Your task to perform on an android device: Open privacy settings Image 0: 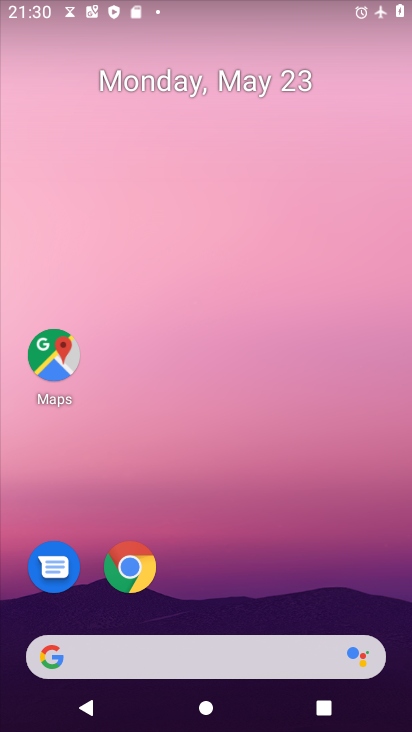
Step 0: drag from (299, 601) to (269, 180)
Your task to perform on an android device: Open privacy settings Image 1: 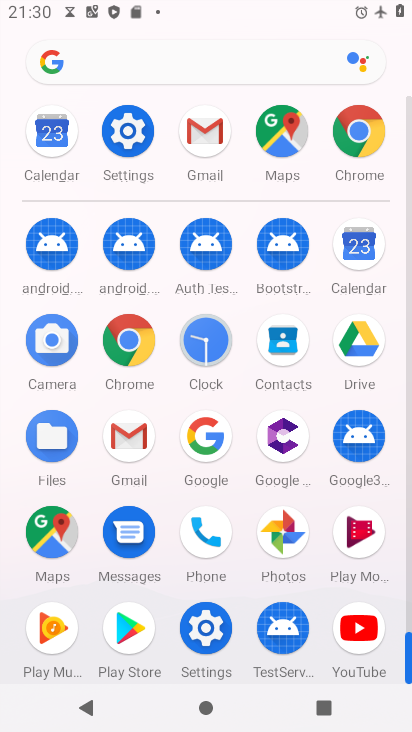
Step 1: click (138, 131)
Your task to perform on an android device: Open privacy settings Image 2: 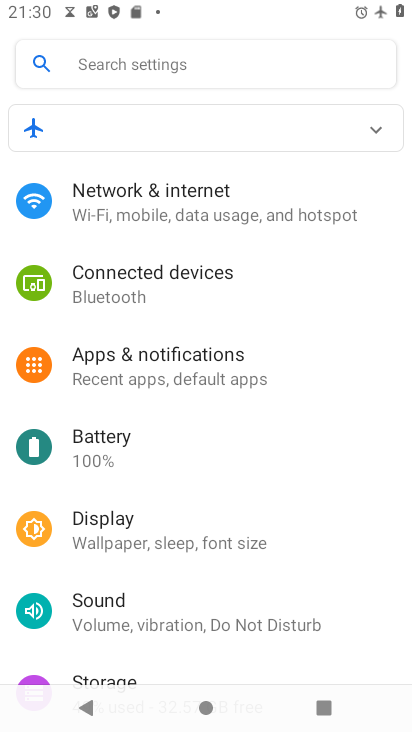
Step 2: drag from (135, 610) to (197, 195)
Your task to perform on an android device: Open privacy settings Image 3: 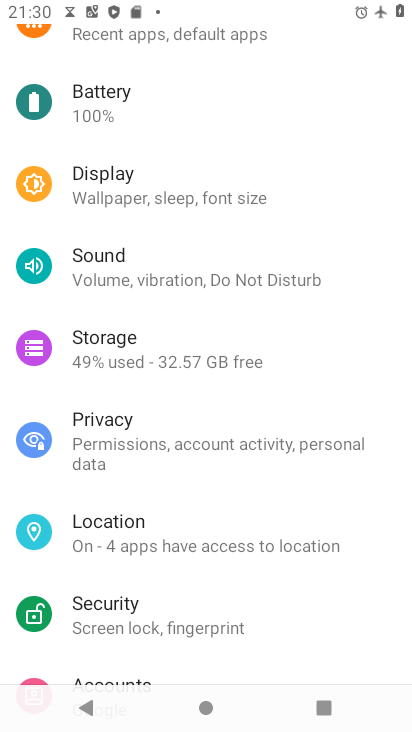
Step 3: click (121, 435)
Your task to perform on an android device: Open privacy settings Image 4: 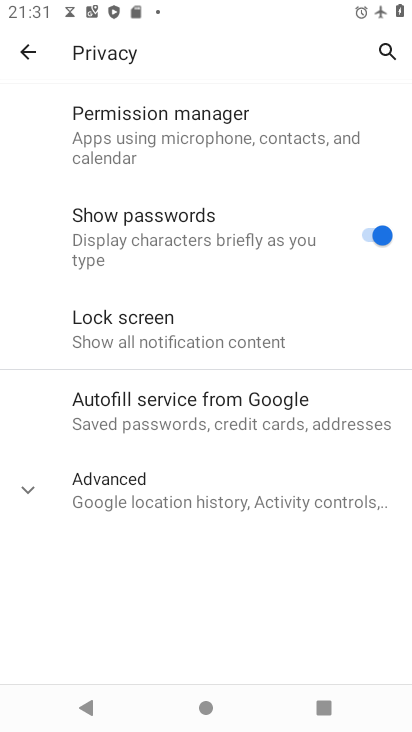
Step 4: task complete